Your task to perform on an android device: turn on location history Image 0: 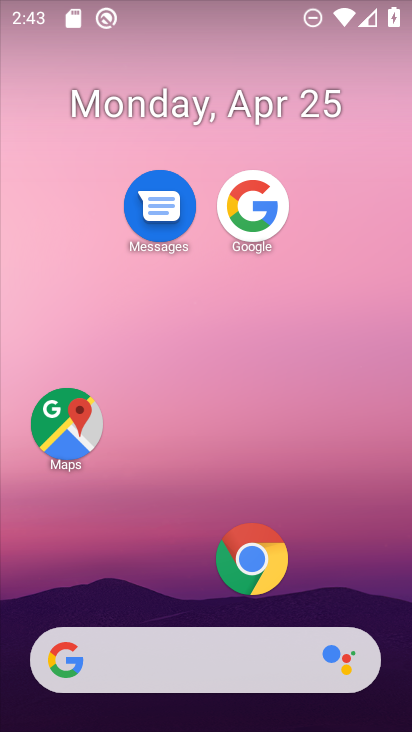
Step 0: drag from (192, 501) to (236, 77)
Your task to perform on an android device: turn on location history Image 1: 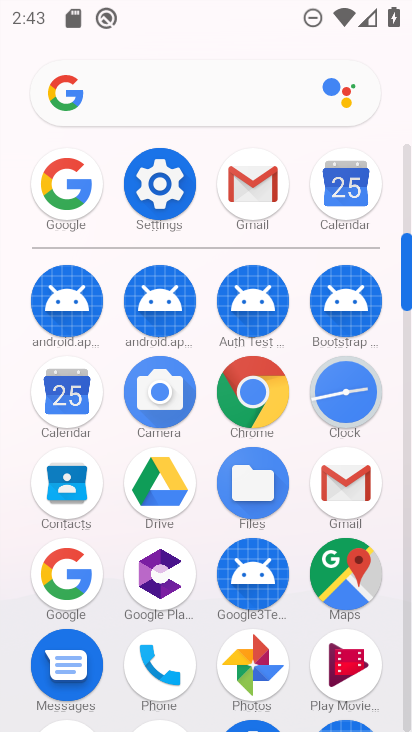
Step 1: click (160, 178)
Your task to perform on an android device: turn on location history Image 2: 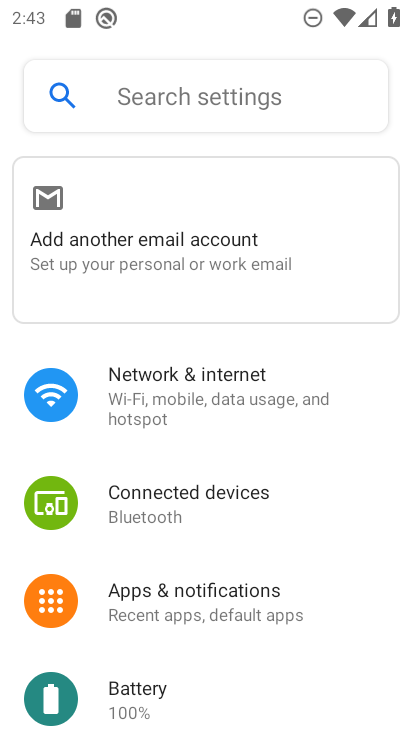
Step 2: drag from (234, 608) to (262, 143)
Your task to perform on an android device: turn on location history Image 3: 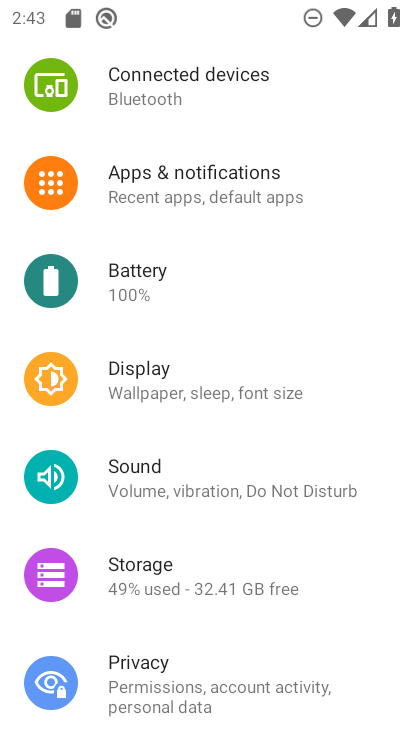
Step 3: drag from (223, 565) to (230, 167)
Your task to perform on an android device: turn on location history Image 4: 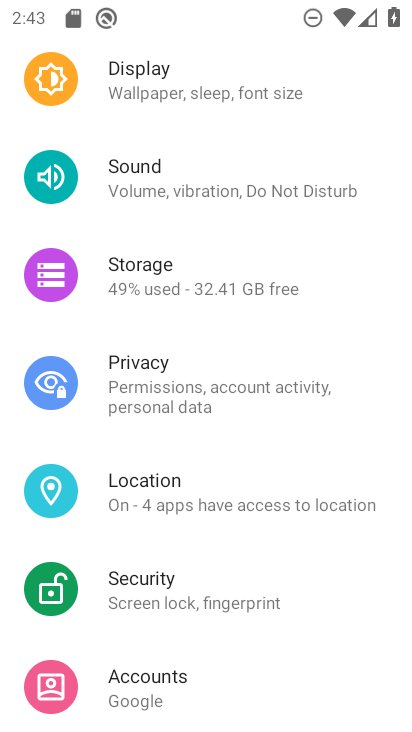
Step 4: click (160, 482)
Your task to perform on an android device: turn on location history Image 5: 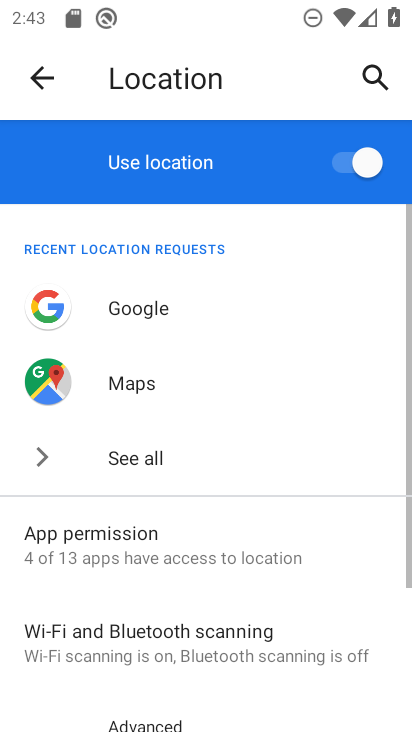
Step 5: drag from (201, 540) to (224, 195)
Your task to perform on an android device: turn on location history Image 6: 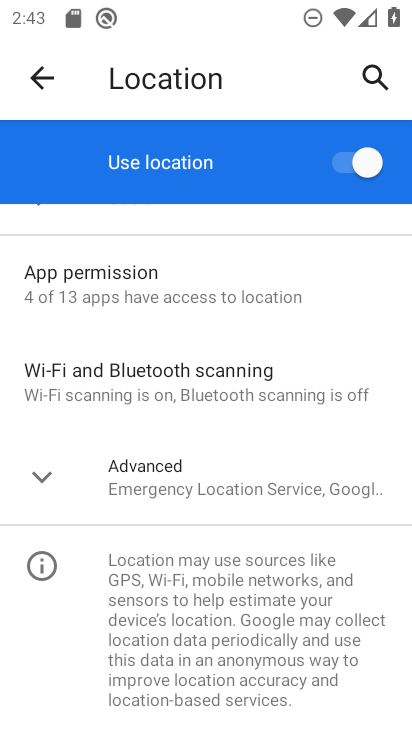
Step 6: click (148, 484)
Your task to perform on an android device: turn on location history Image 7: 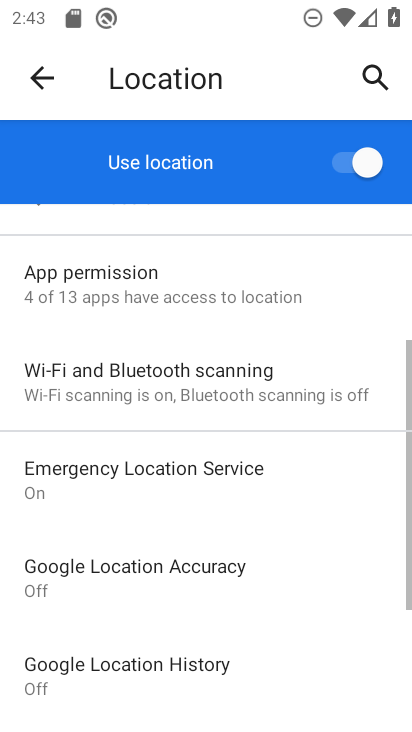
Step 7: drag from (237, 549) to (239, 356)
Your task to perform on an android device: turn on location history Image 8: 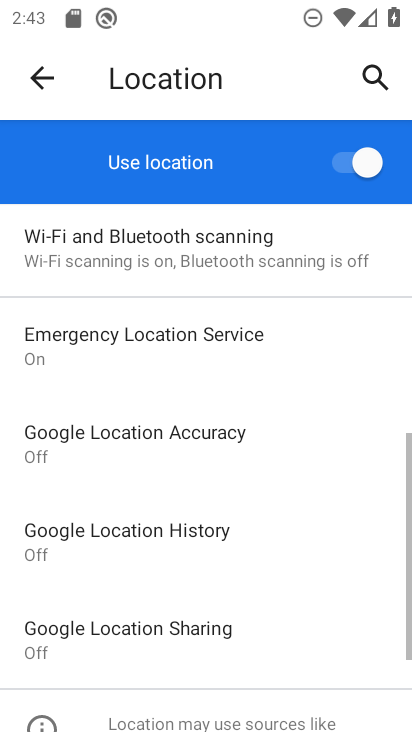
Step 8: click (144, 540)
Your task to perform on an android device: turn on location history Image 9: 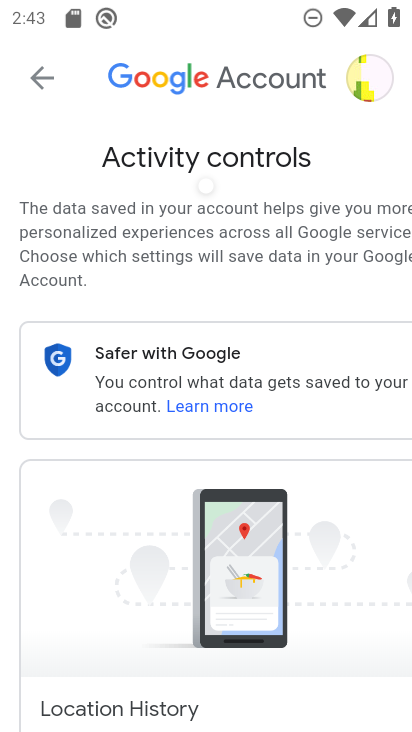
Step 9: drag from (193, 599) to (242, 135)
Your task to perform on an android device: turn on location history Image 10: 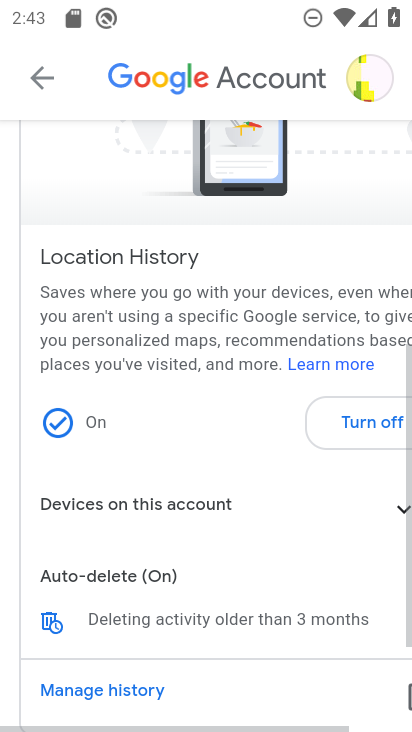
Step 10: drag from (199, 578) to (198, 353)
Your task to perform on an android device: turn on location history Image 11: 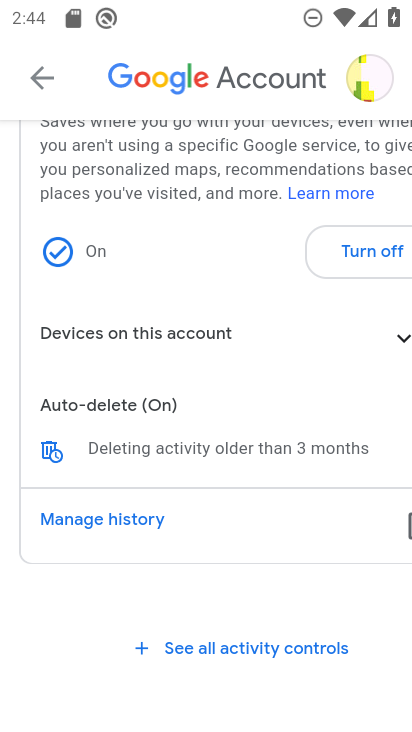
Step 11: press back button
Your task to perform on an android device: turn on location history Image 12: 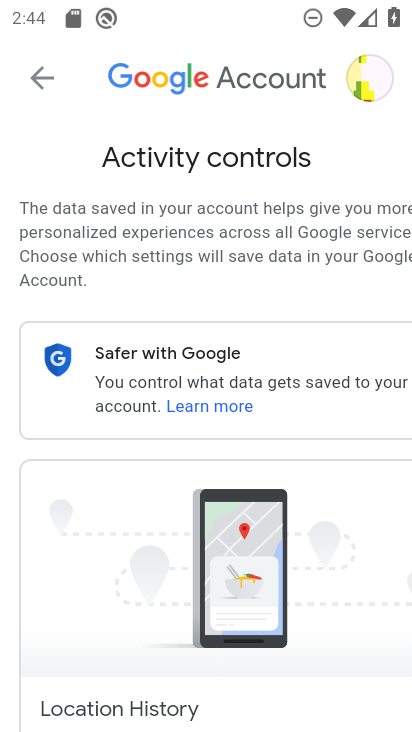
Step 12: press back button
Your task to perform on an android device: turn on location history Image 13: 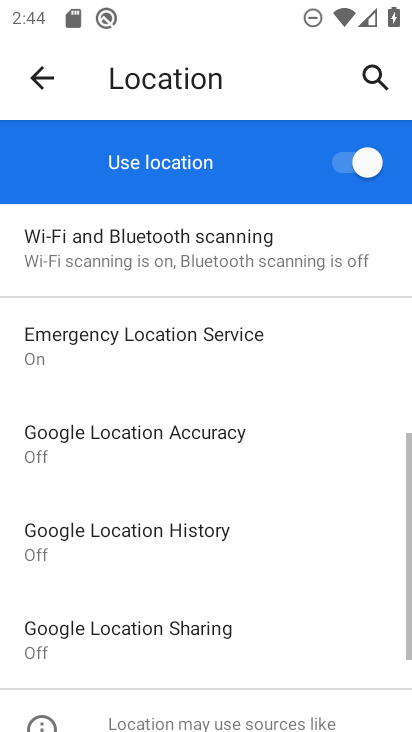
Step 13: drag from (259, 562) to (299, 408)
Your task to perform on an android device: turn on location history Image 14: 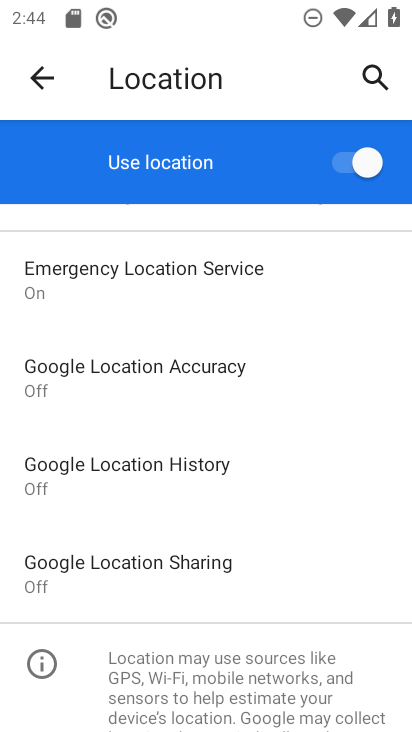
Step 14: click (155, 484)
Your task to perform on an android device: turn on location history Image 15: 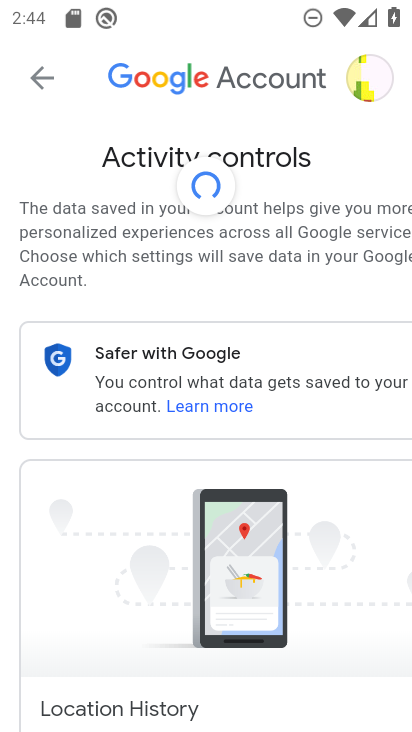
Step 15: drag from (143, 554) to (199, 216)
Your task to perform on an android device: turn on location history Image 16: 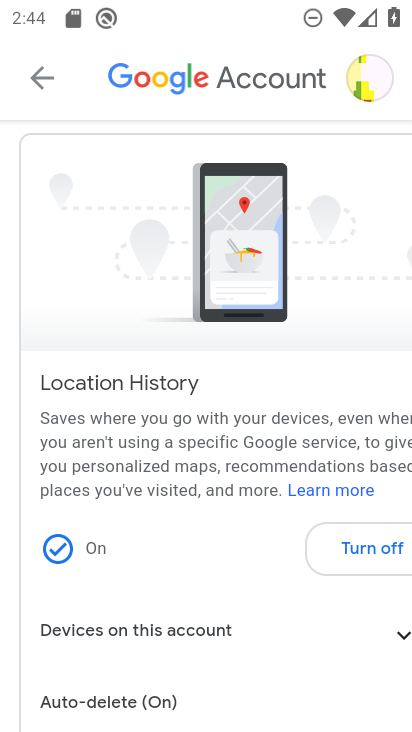
Step 16: click (354, 550)
Your task to perform on an android device: turn on location history Image 17: 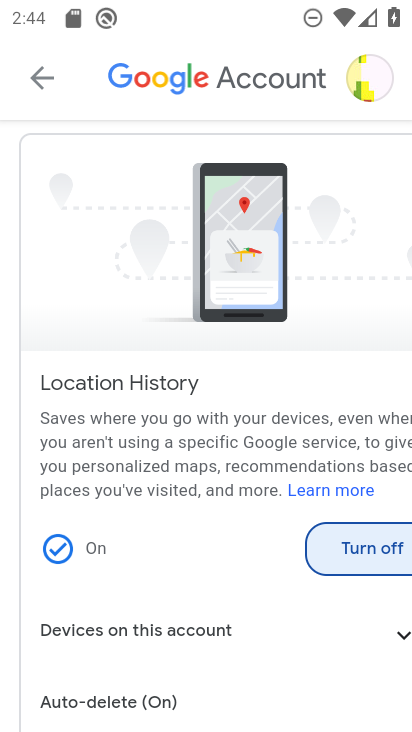
Step 17: drag from (302, 573) to (278, 388)
Your task to perform on an android device: turn on location history Image 18: 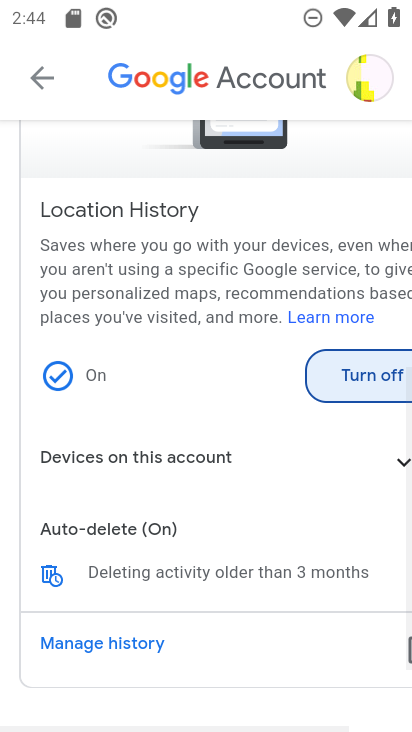
Step 18: click (364, 380)
Your task to perform on an android device: turn on location history Image 19: 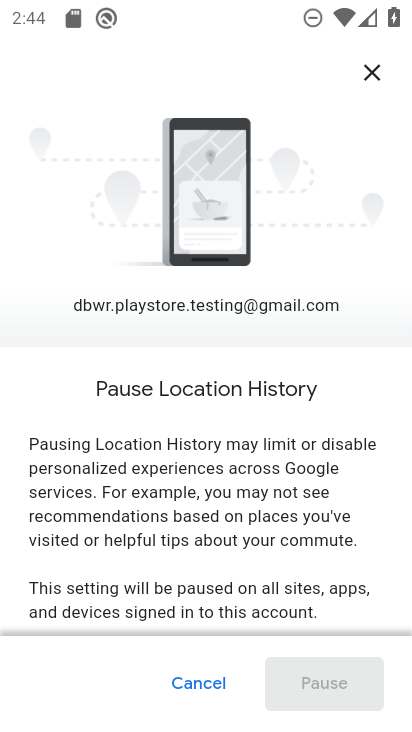
Step 19: task complete